Your task to perform on an android device: Check the news Image 0: 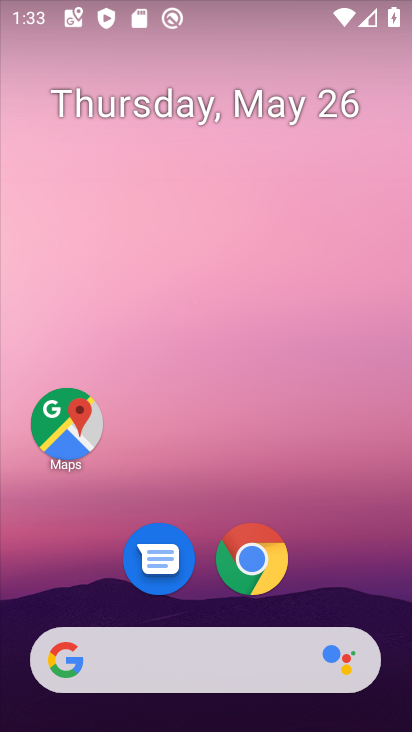
Step 0: press home button
Your task to perform on an android device: Check the news Image 1: 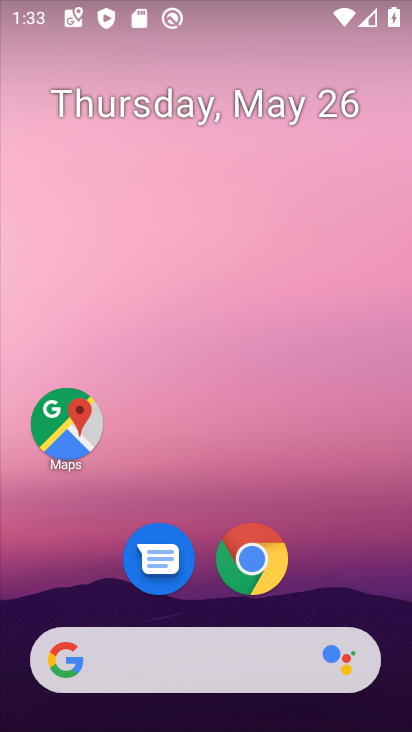
Step 1: click (73, 659)
Your task to perform on an android device: Check the news Image 2: 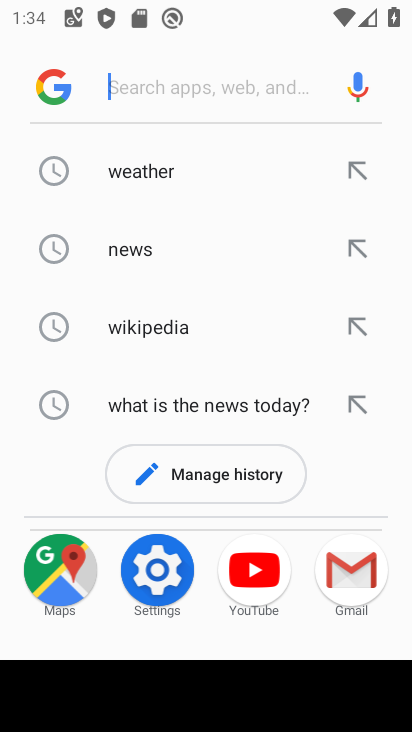
Step 2: click (147, 249)
Your task to perform on an android device: Check the news Image 3: 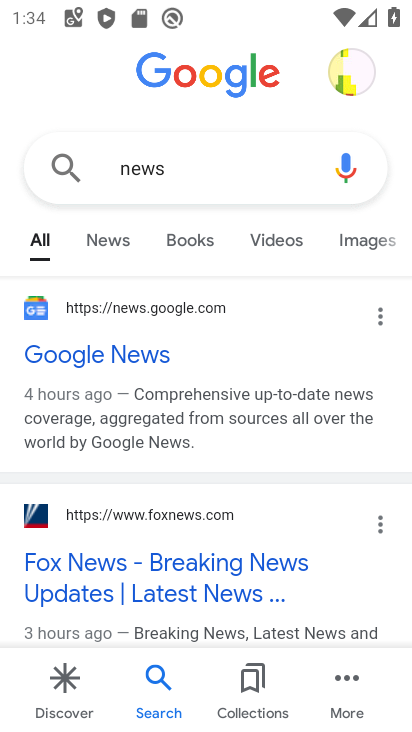
Step 3: click (116, 240)
Your task to perform on an android device: Check the news Image 4: 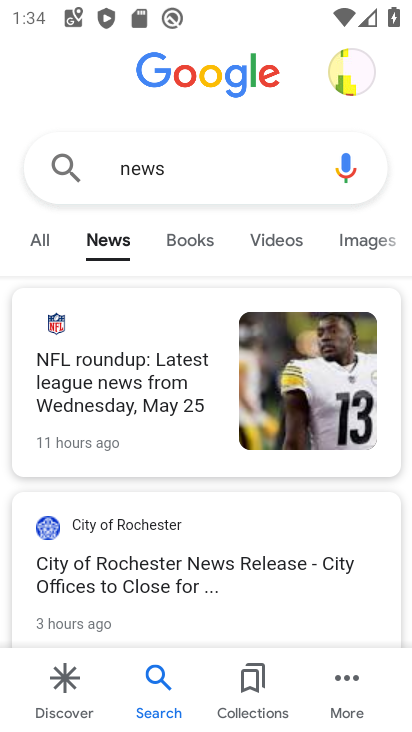
Step 4: task complete